Your task to perform on an android device: What's the weather today? Image 0: 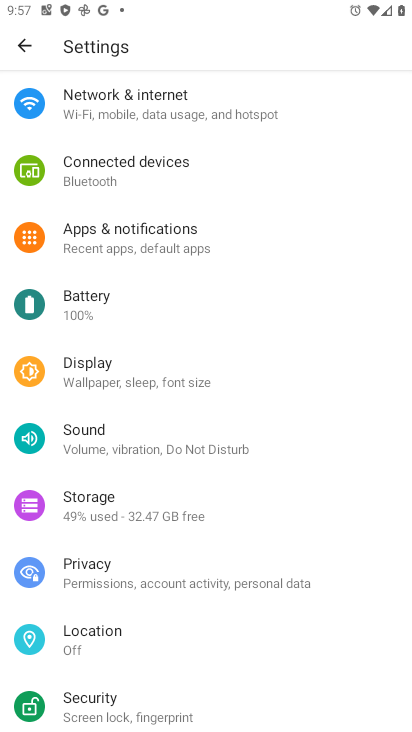
Step 0: press back button
Your task to perform on an android device: What's the weather today? Image 1: 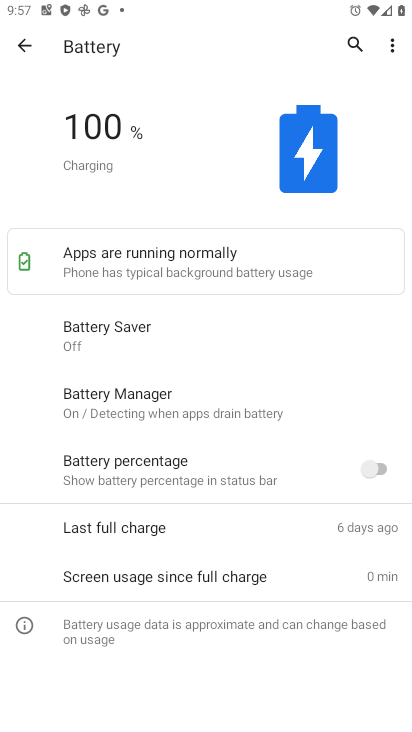
Step 1: press back button
Your task to perform on an android device: What's the weather today? Image 2: 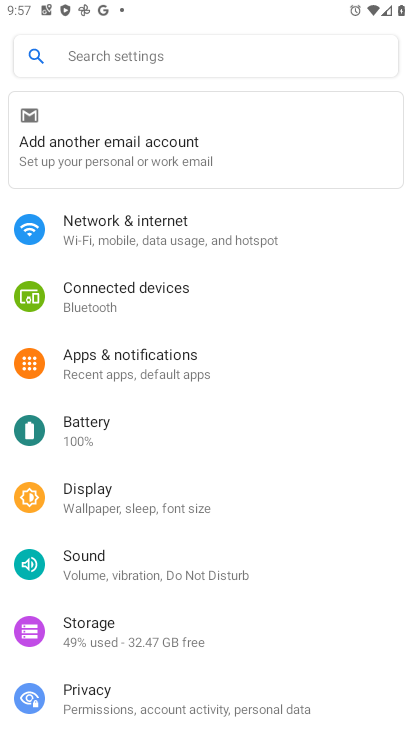
Step 2: press back button
Your task to perform on an android device: What's the weather today? Image 3: 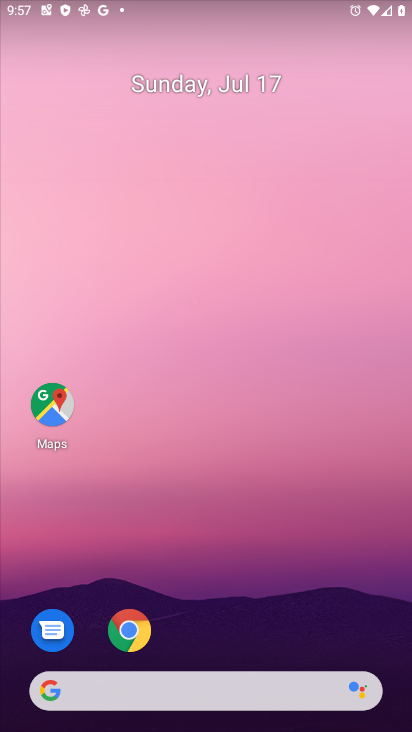
Step 3: click (140, 703)
Your task to perform on an android device: What's the weather today? Image 4: 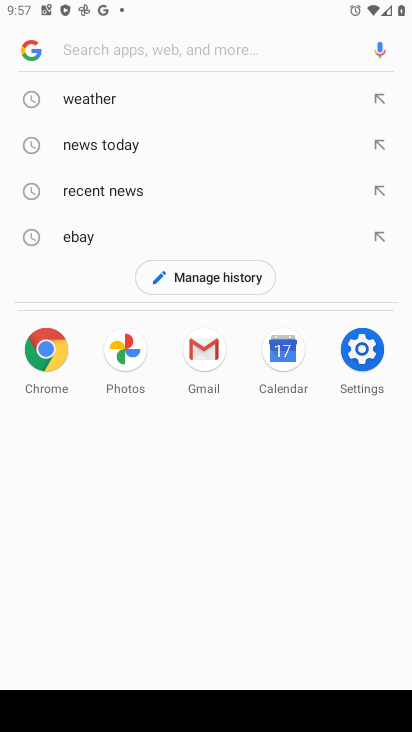
Step 4: click (78, 100)
Your task to perform on an android device: What's the weather today? Image 5: 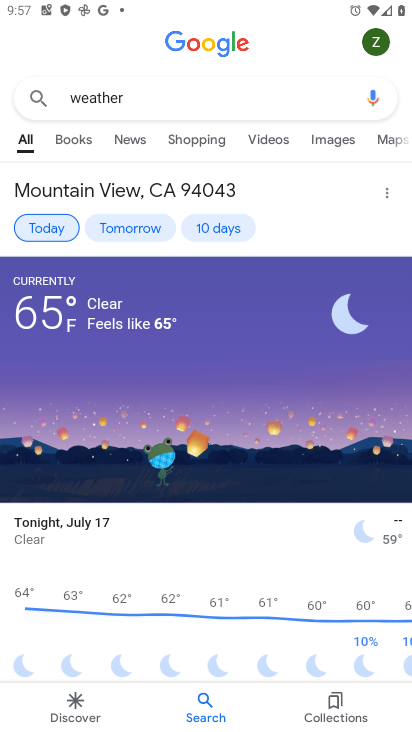
Step 5: task complete